Your task to perform on an android device: What is the recent news? Image 0: 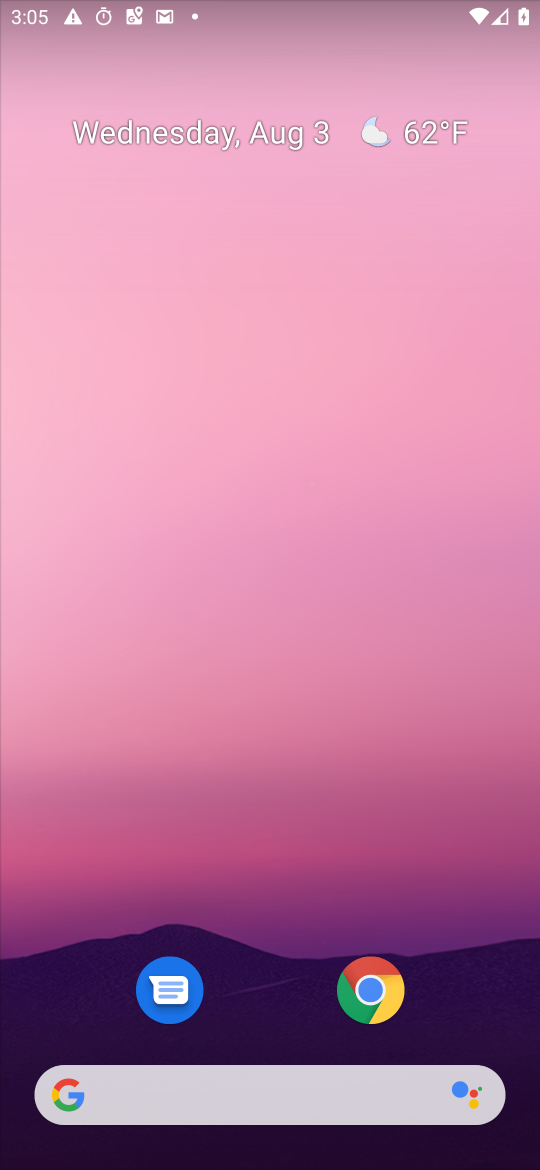
Step 0: drag from (285, 1059) to (293, 284)
Your task to perform on an android device: What is the recent news? Image 1: 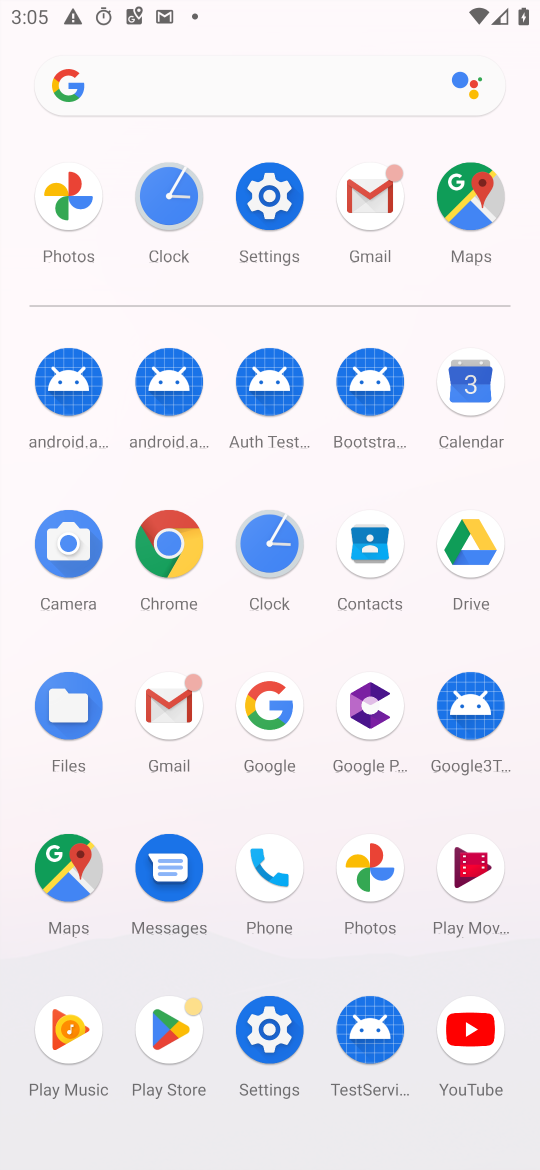
Step 1: click (259, 716)
Your task to perform on an android device: What is the recent news? Image 2: 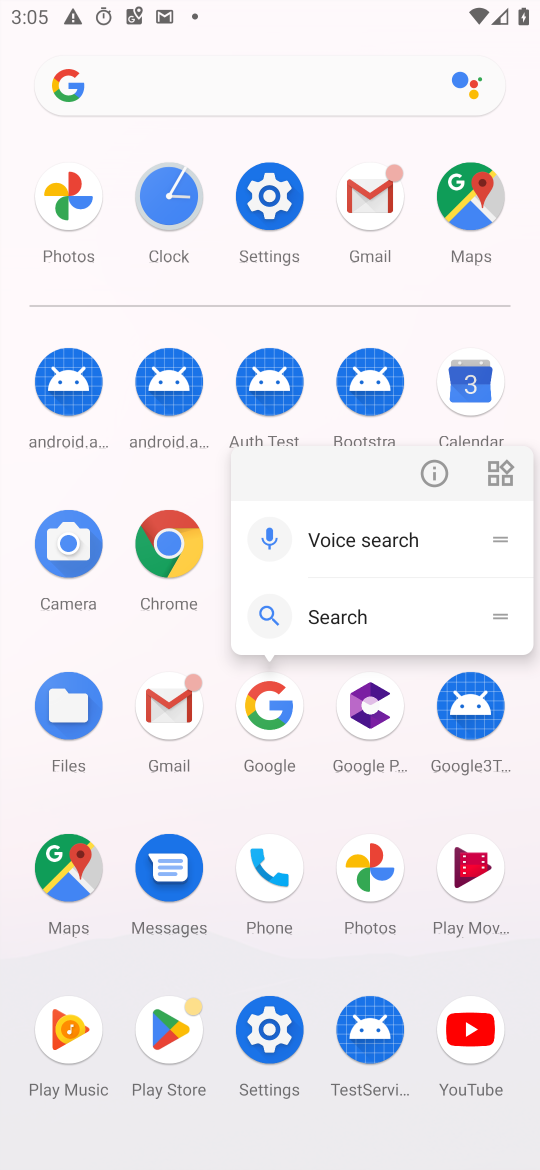
Step 2: click (261, 714)
Your task to perform on an android device: What is the recent news? Image 3: 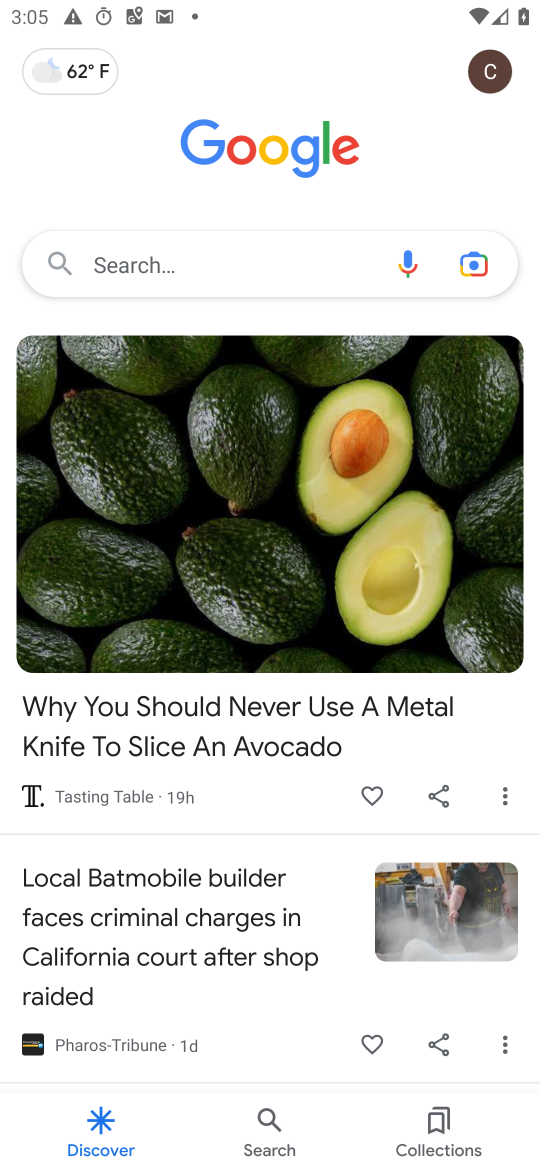
Step 3: click (276, 280)
Your task to perform on an android device: What is the recent news? Image 4: 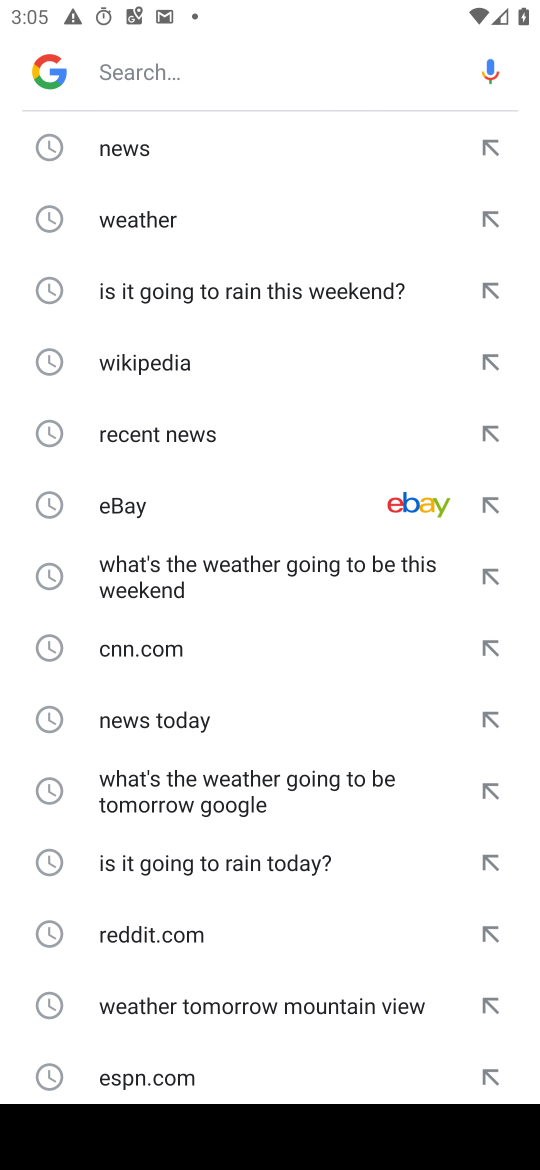
Step 4: click (170, 441)
Your task to perform on an android device: What is the recent news? Image 5: 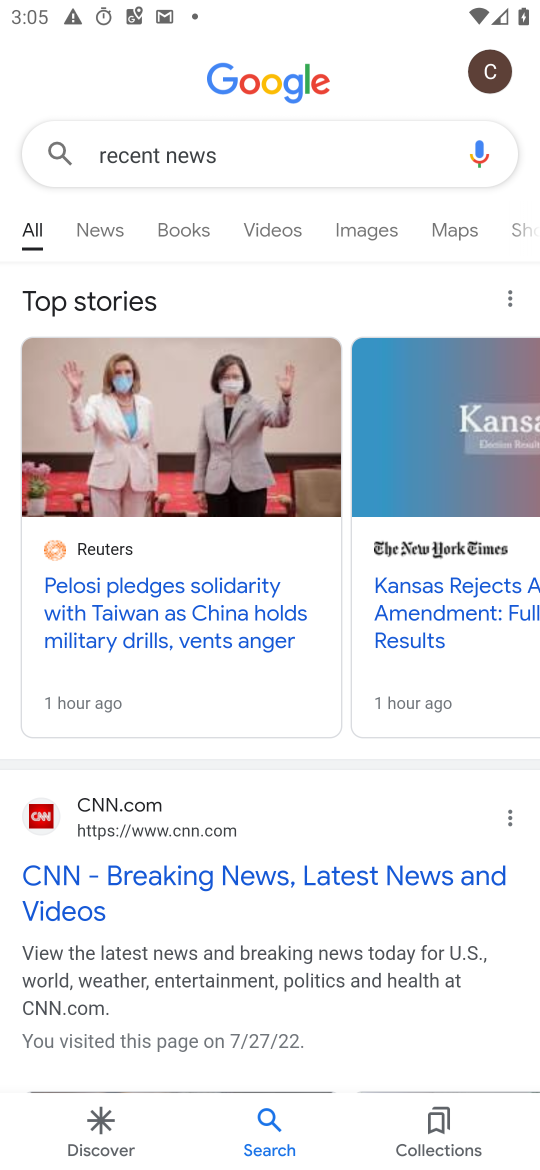
Step 5: task complete